Your task to perform on an android device: Is it going to rain today? Image 0: 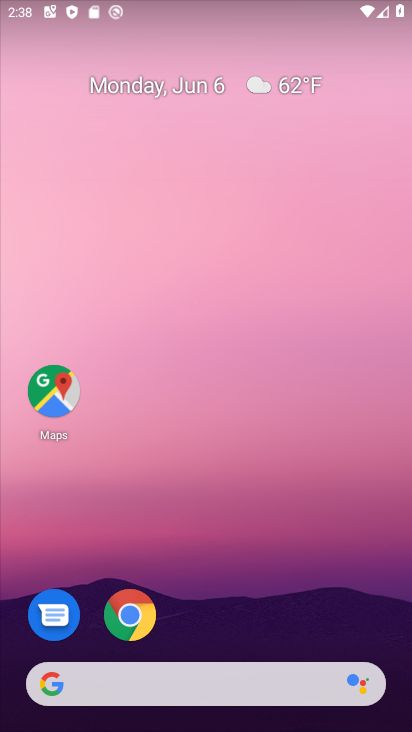
Step 0: drag from (0, 264) to (347, 276)
Your task to perform on an android device: Is it going to rain today? Image 1: 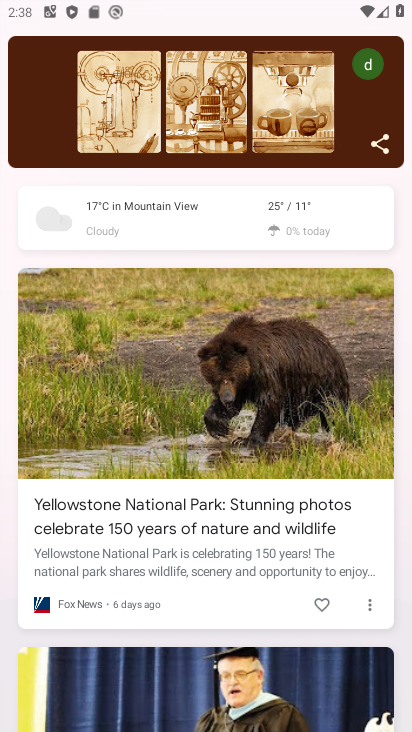
Step 1: click (195, 219)
Your task to perform on an android device: Is it going to rain today? Image 2: 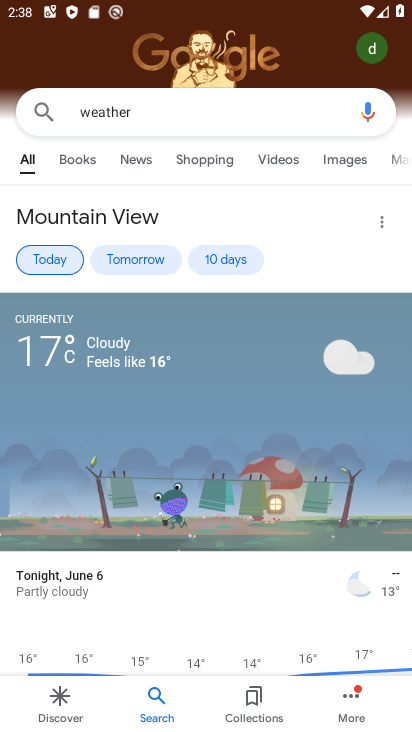
Step 2: task complete